Your task to perform on an android device: Go to Google Image 0: 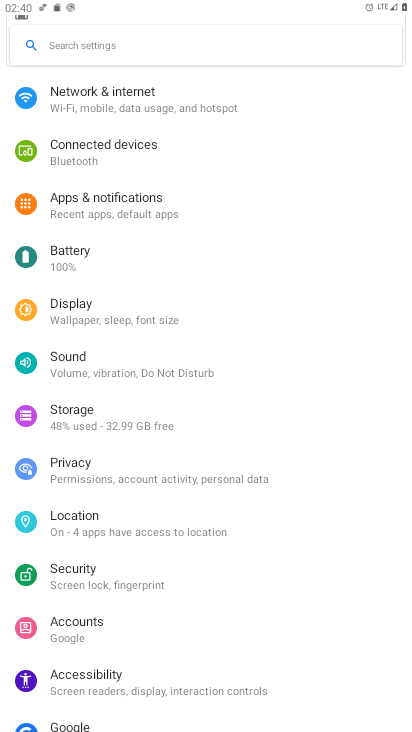
Step 0: press home button
Your task to perform on an android device: Go to Google Image 1: 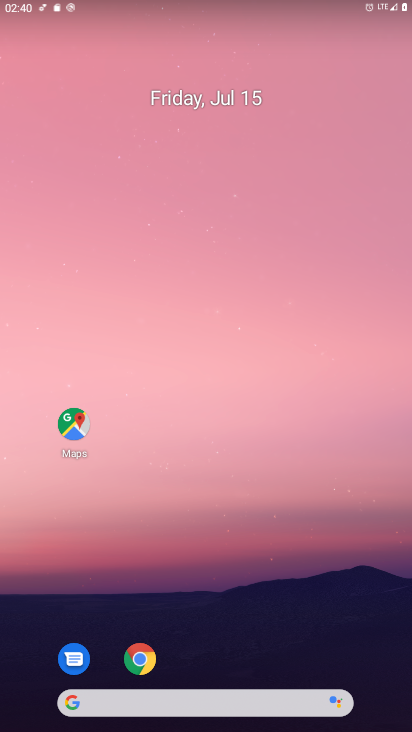
Step 1: drag from (175, 593) to (176, 276)
Your task to perform on an android device: Go to Google Image 2: 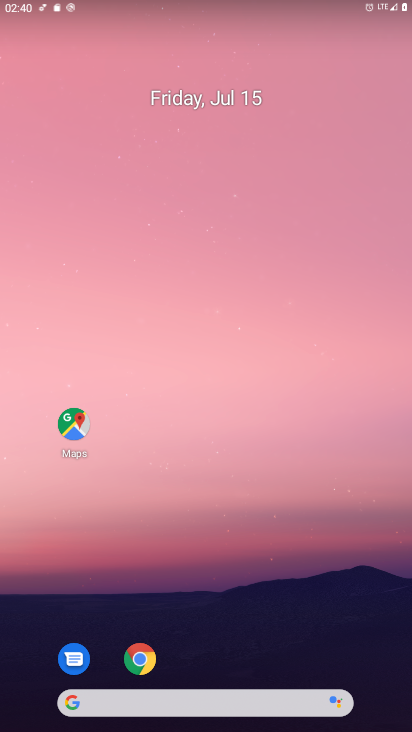
Step 2: drag from (151, 635) to (219, 426)
Your task to perform on an android device: Go to Google Image 3: 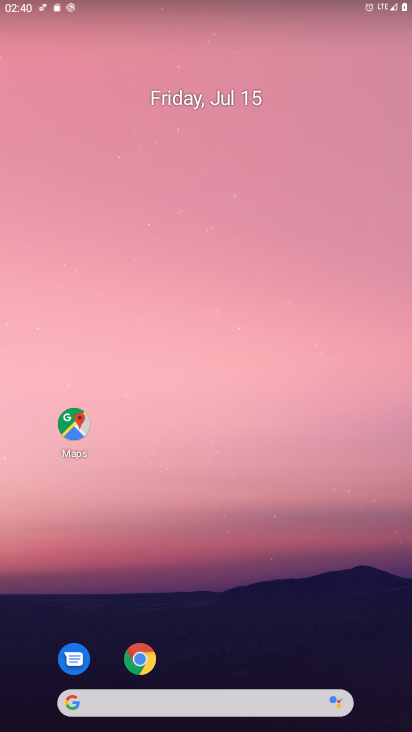
Step 3: drag from (159, 699) to (174, 147)
Your task to perform on an android device: Go to Google Image 4: 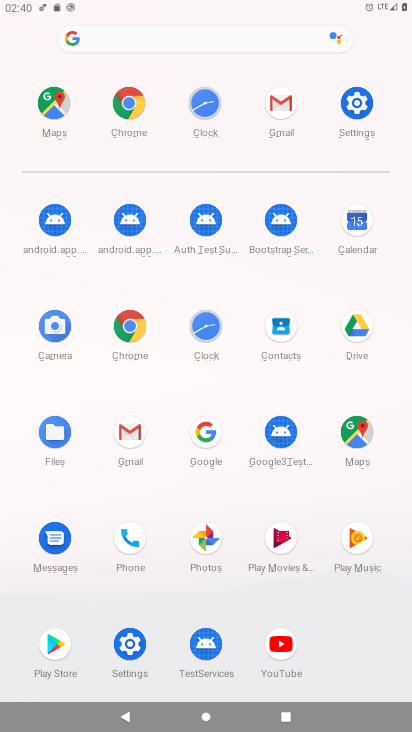
Step 4: click (193, 419)
Your task to perform on an android device: Go to Google Image 5: 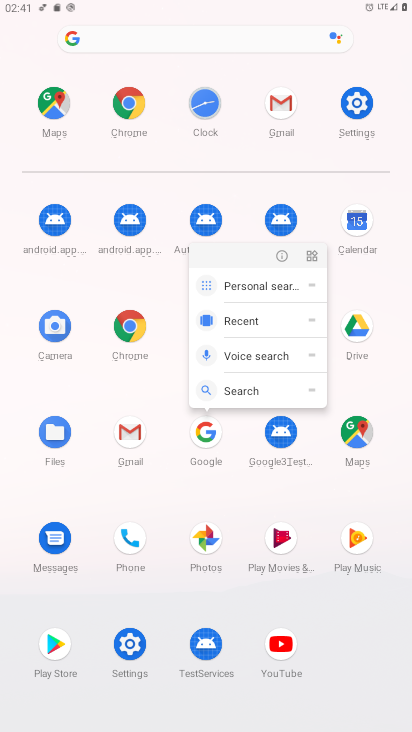
Step 5: click (202, 427)
Your task to perform on an android device: Go to Google Image 6: 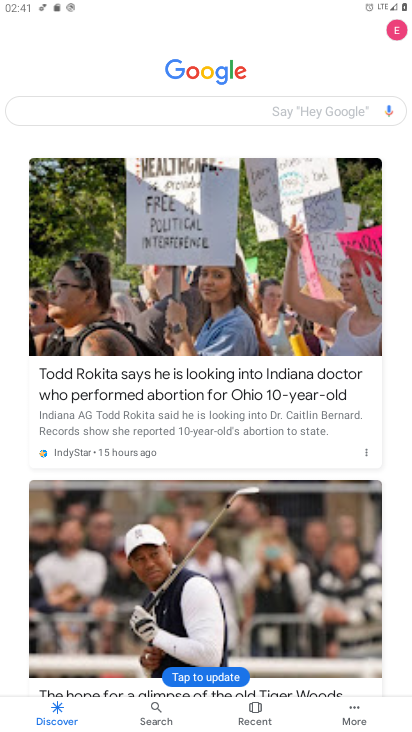
Step 6: task complete